Your task to perform on an android device: Go to sound settings Image 0: 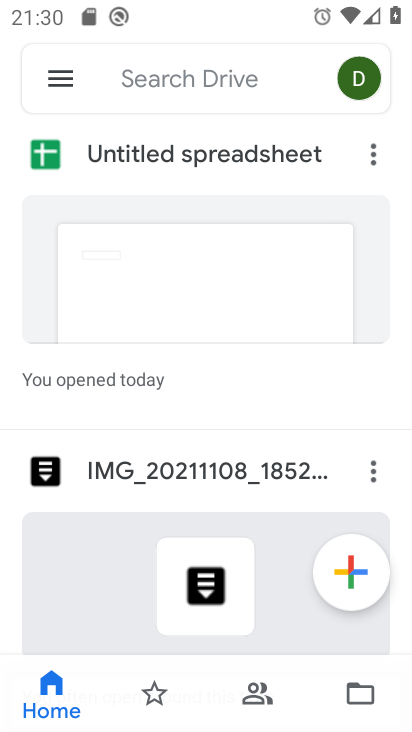
Step 0: press home button
Your task to perform on an android device: Go to sound settings Image 1: 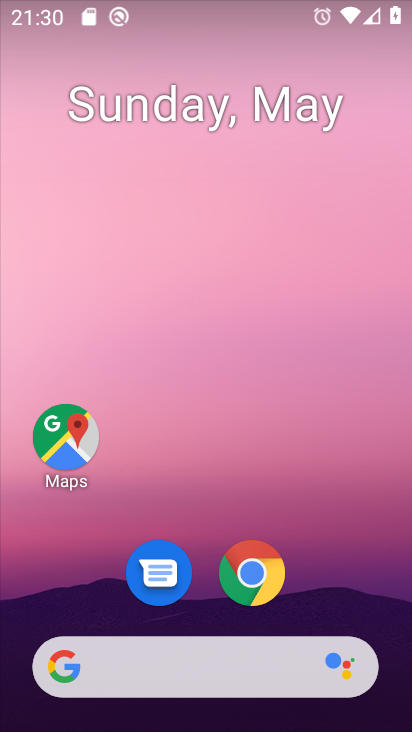
Step 1: drag from (221, 492) to (249, 26)
Your task to perform on an android device: Go to sound settings Image 2: 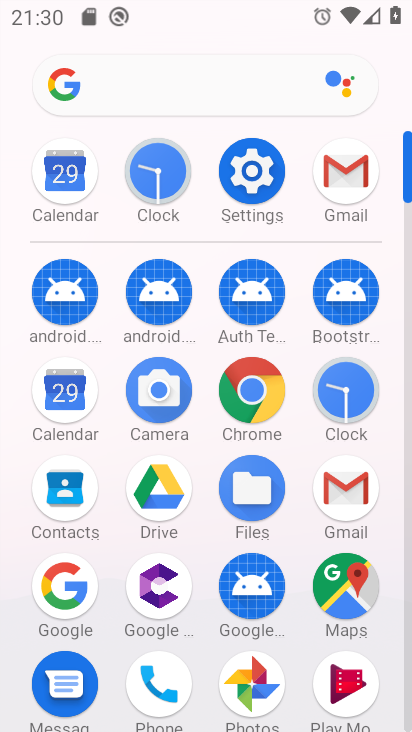
Step 2: click (246, 163)
Your task to perform on an android device: Go to sound settings Image 3: 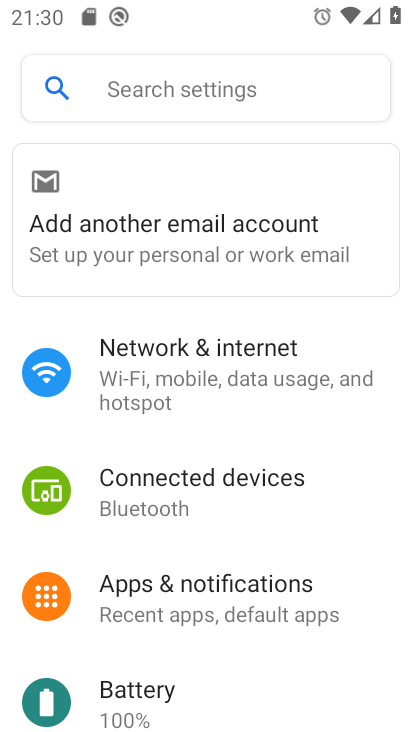
Step 3: drag from (263, 568) to (265, 85)
Your task to perform on an android device: Go to sound settings Image 4: 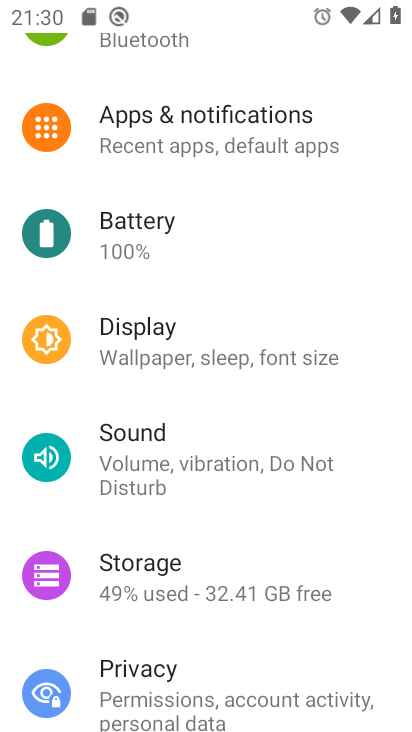
Step 4: click (231, 460)
Your task to perform on an android device: Go to sound settings Image 5: 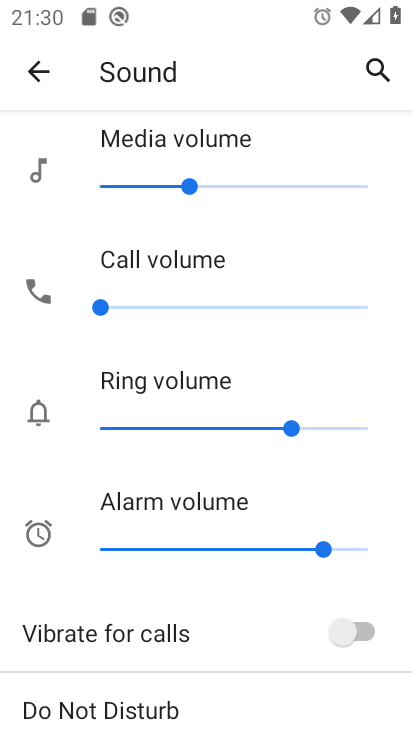
Step 5: task complete